Your task to perform on an android device: What's the weather going to be tomorrow? Image 0: 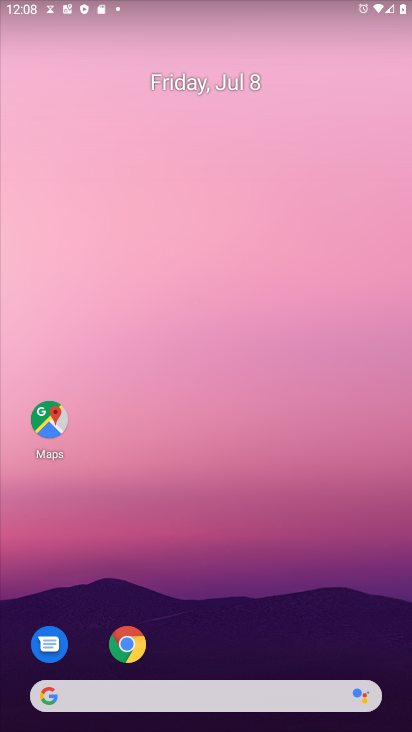
Step 0: click (217, 701)
Your task to perform on an android device: What's the weather going to be tomorrow? Image 1: 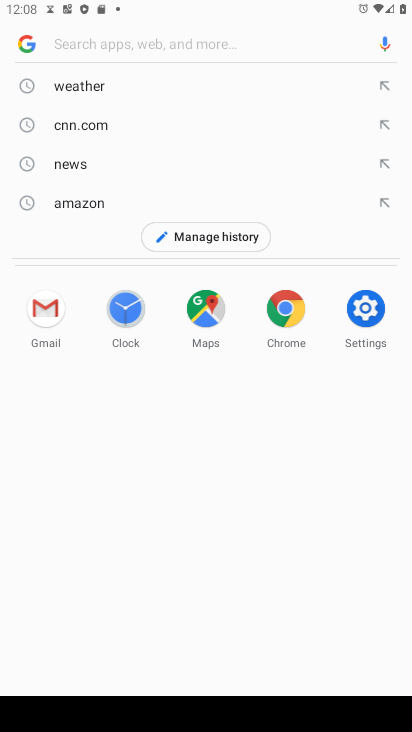
Step 1: click (105, 83)
Your task to perform on an android device: What's the weather going to be tomorrow? Image 2: 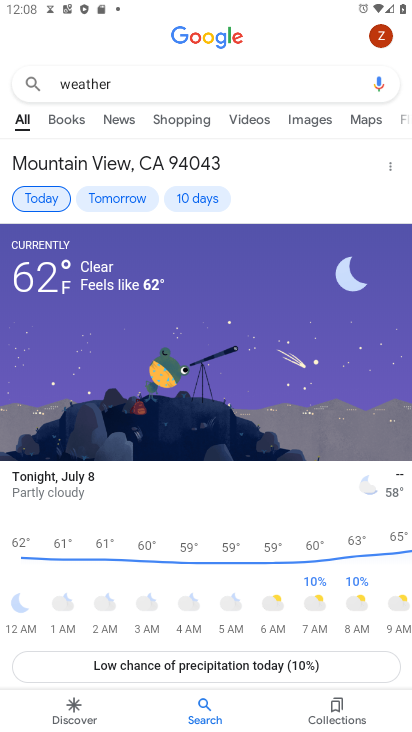
Step 2: click (136, 199)
Your task to perform on an android device: What's the weather going to be tomorrow? Image 3: 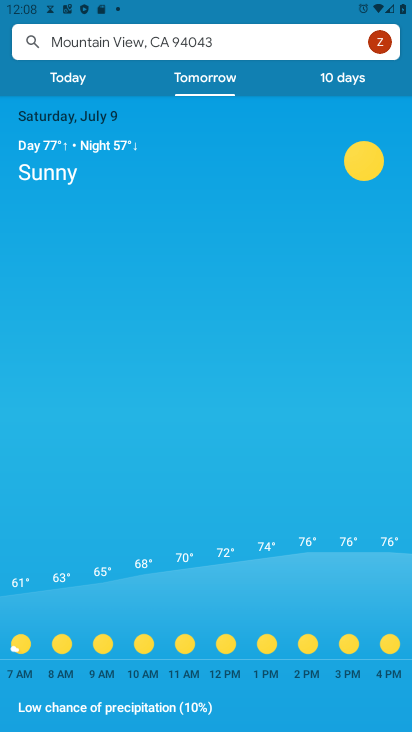
Step 3: task complete